Your task to perform on an android device: turn on priority inbox in the gmail app Image 0: 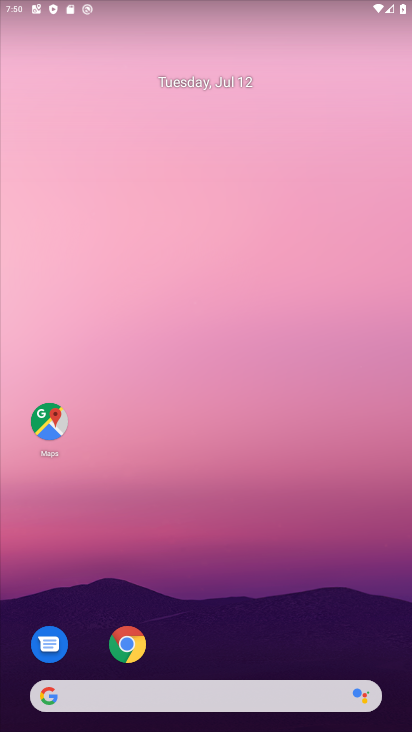
Step 0: drag from (201, 585) to (220, 292)
Your task to perform on an android device: turn on priority inbox in the gmail app Image 1: 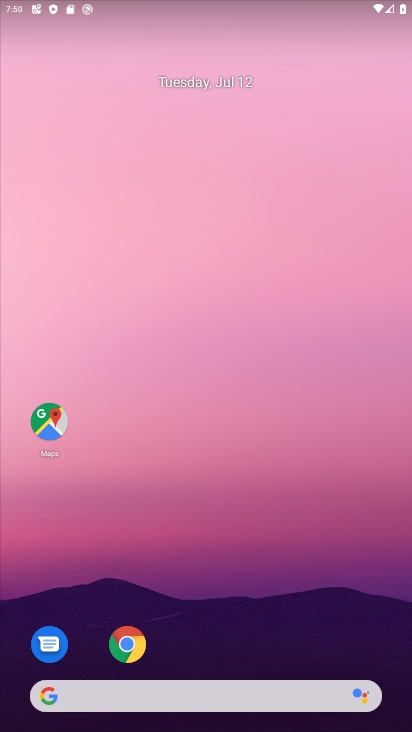
Step 1: drag from (203, 608) to (299, 180)
Your task to perform on an android device: turn on priority inbox in the gmail app Image 2: 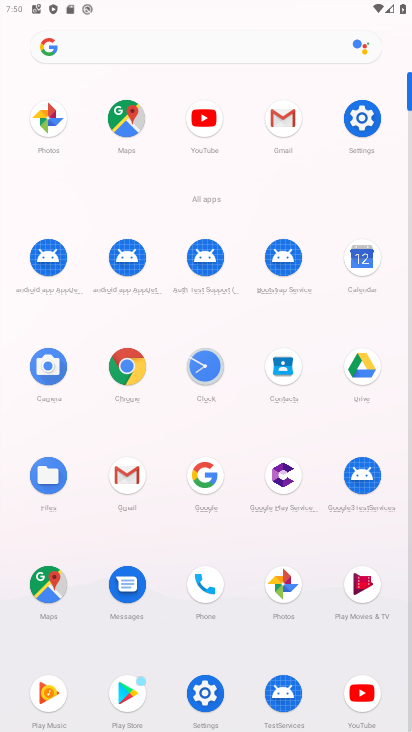
Step 2: click (120, 481)
Your task to perform on an android device: turn on priority inbox in the gmail app Image 3: 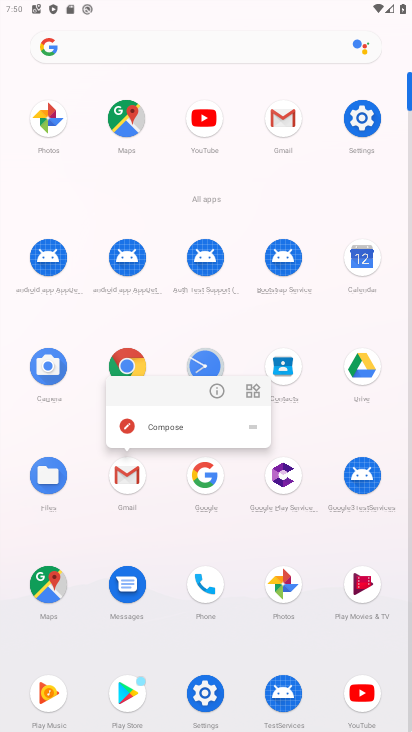
Step 3: click (219, 388)
Your task to perform on an android device: turn on priority inbox in the gmail app Image 4: 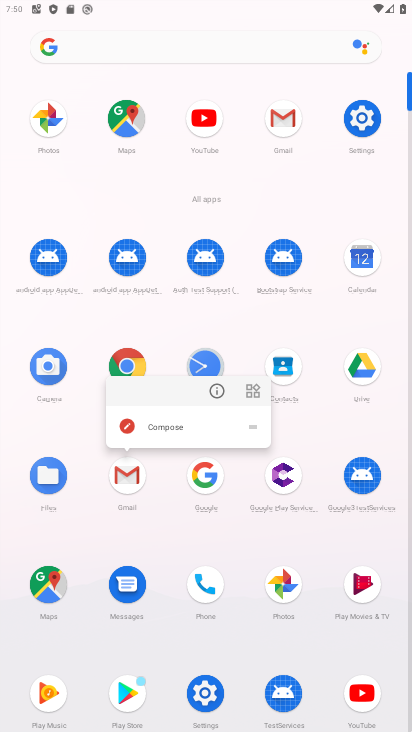
Step 4: click (219, 388)
Your task to perform on an android device: turn on priority inbox in the gmail app Image 5: 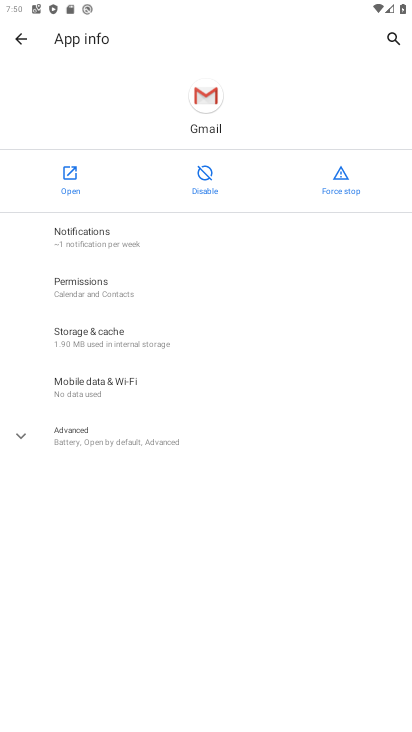
Step 5: click (66, 167)
Your task to perform on an android device: turn on priority inbox in the gmail app Image 6: 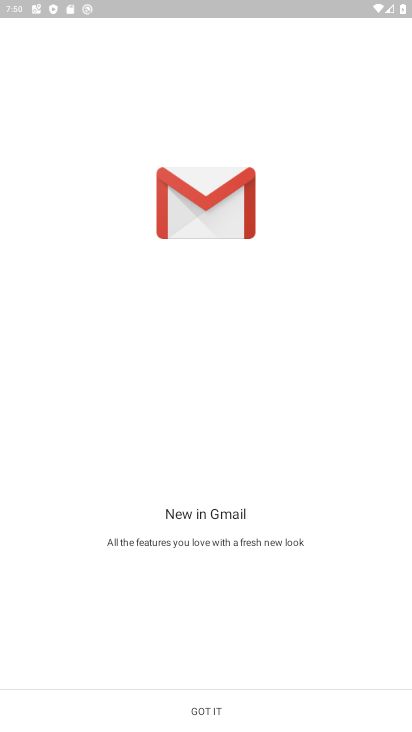
Step 6: drag from (273, 551) to (191, 107)
Your task to perform on an android device: turn on priority inbox in the gmail app Image 7: 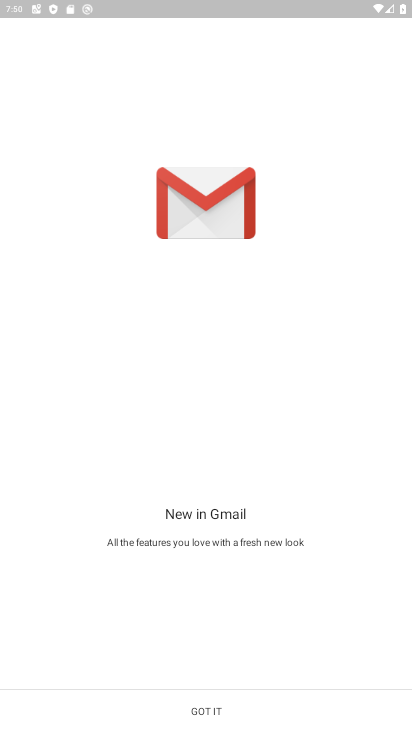
Step 7: click (207, 721)
Your task to perform on an android device: turn on priority inbox in the gmail app Image 8: 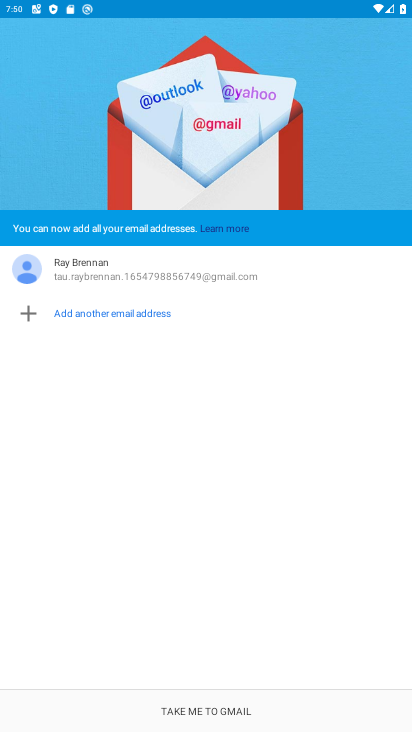
Step 8: click (240, 694)
Your task to perform on an android device: turn on priority inbox in the gmail app Image 9: 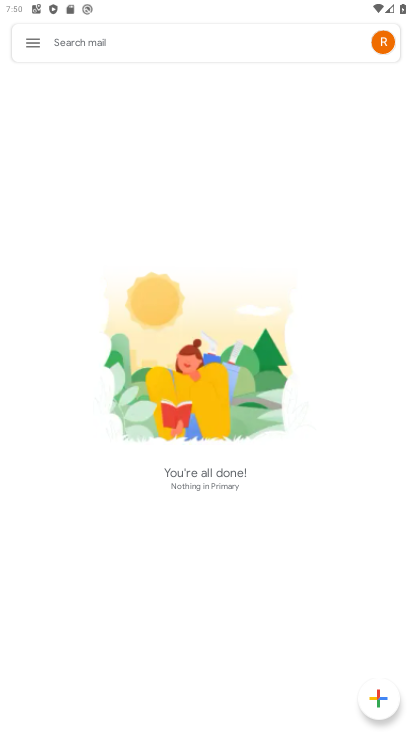
Step 9: drag from (230, 633) to (265, 340)
Your task to perform on an android device: turn on priority inbox in the gmail app Image 10: 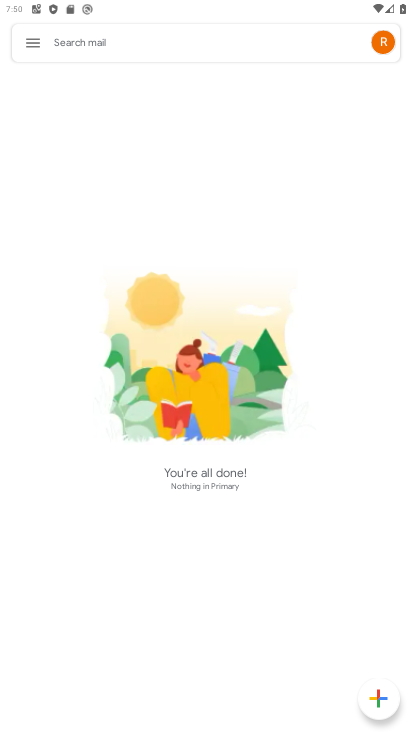
Step 10: click (26, 53)
Your task to perform on an android device: turn on priority inbox in the gmail app Image 11: 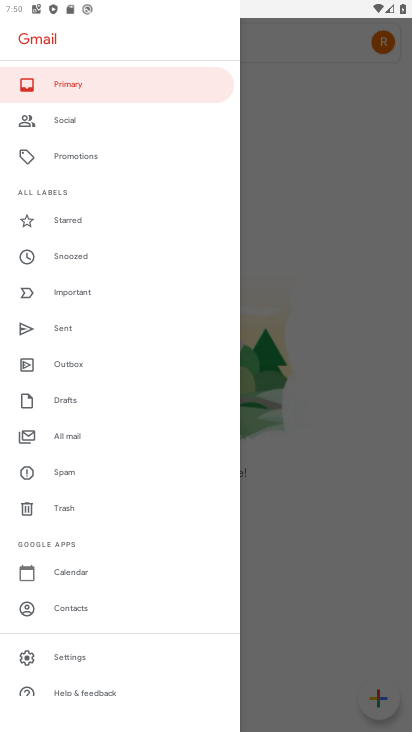
Step 11: click (86, 652)
Your task to perform on an android device: turn on priority inbox in the gmail app Image 12: 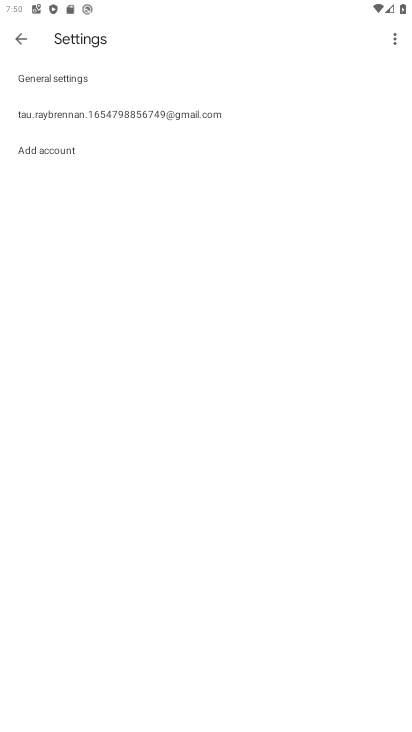
Step 12: click (157, 105)
Your task to perform on an android device: turn on priority inbox in the gmail app Image 13: 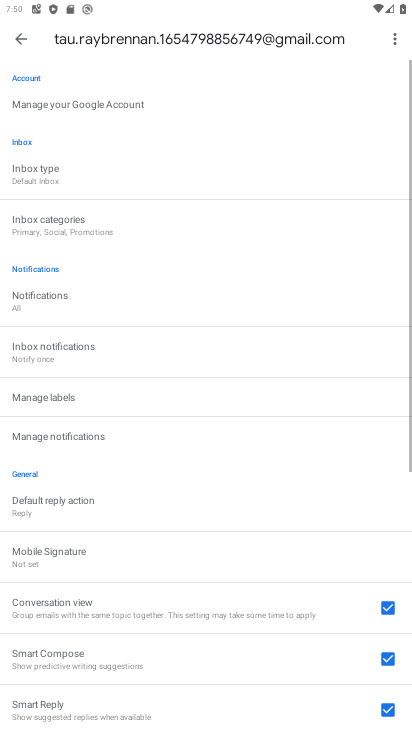
Step 13: click (71, 180)
Your task to perform on an android device: turn on priority inbox in the gmail app Image 14: 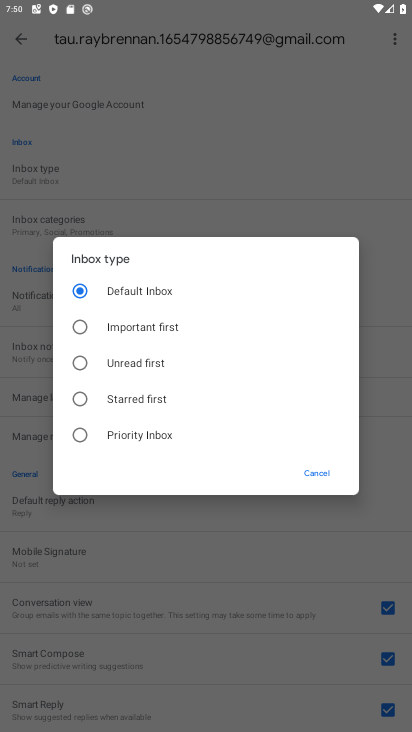
Step 14: click (123, 440)
Your task to perform on an android device: turn on priority inbox in the gmail app Image 15: 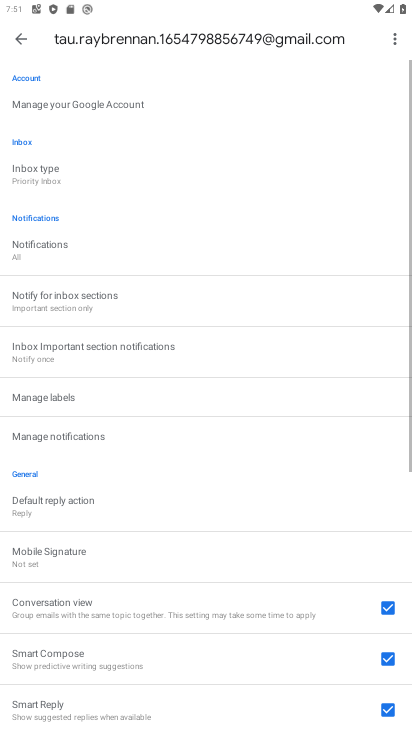
Step 15: drag from (141, 293) to (175, 115)
Your task to perform on an android device: turn on priority inbox in the gmail app Image 16: 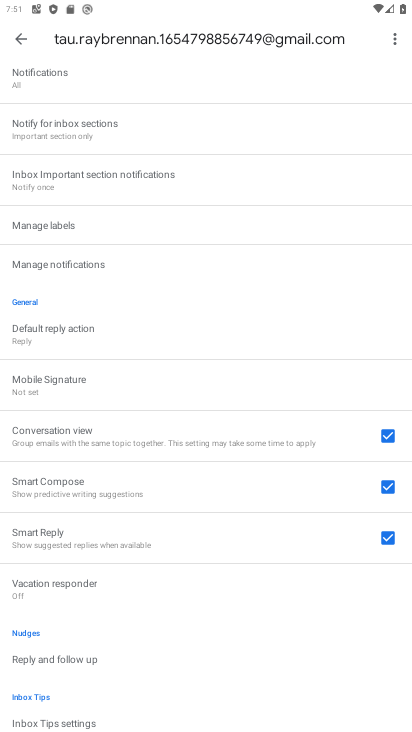
Step 16: drag from (139, 221) to (211, 644)
Your task to perform on an android device: turn on priority inbox in the gmail app Image 17: 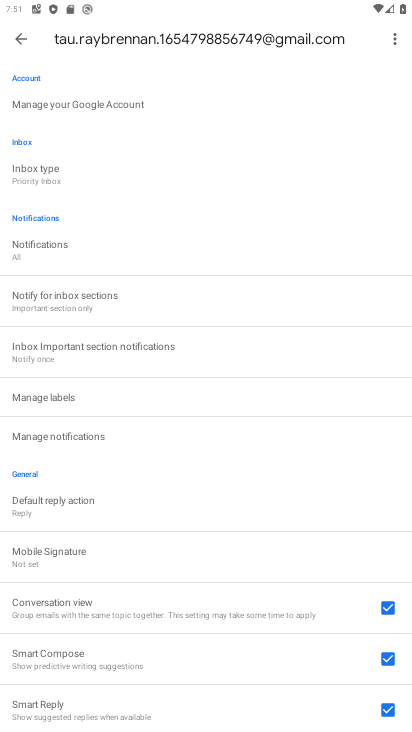
Step 17: click (47, 163)
Your task to perform on an android device: turn on priority inbox in the gmail app Image 18: 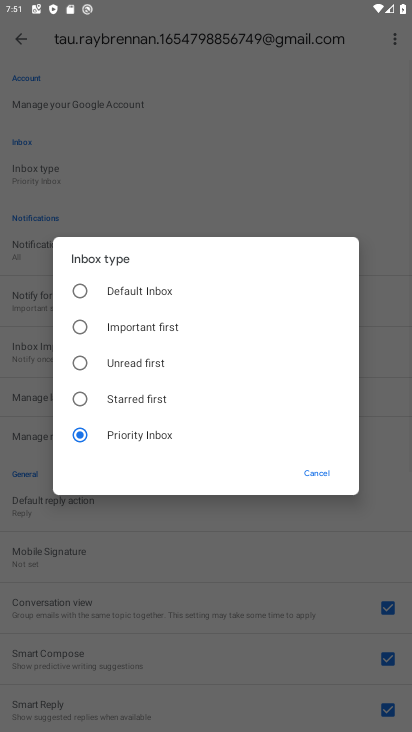
Step 18: click (169, 440)
Your task to perform on an android device: turn on priority inbox in the gmail app Image 19: 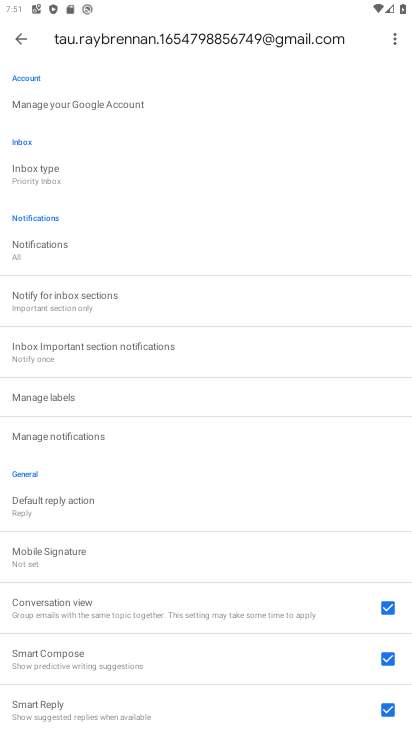
Step 19: task complete